Your task to perform on an android device: Open CNN.com Image 0: 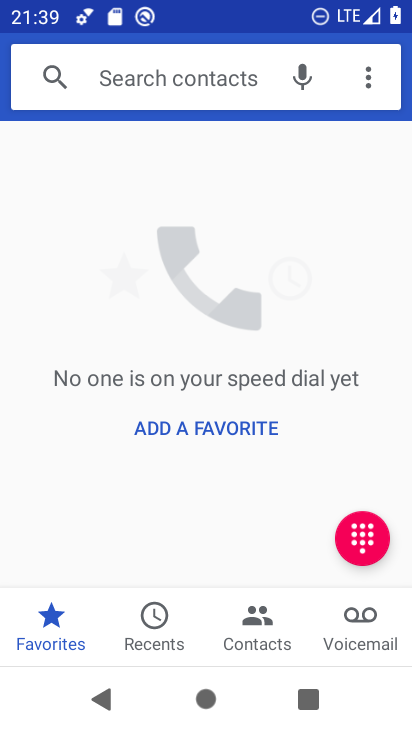
Step 0: press home button
Your task to perform on an android device: Open CNN.com Image 1: 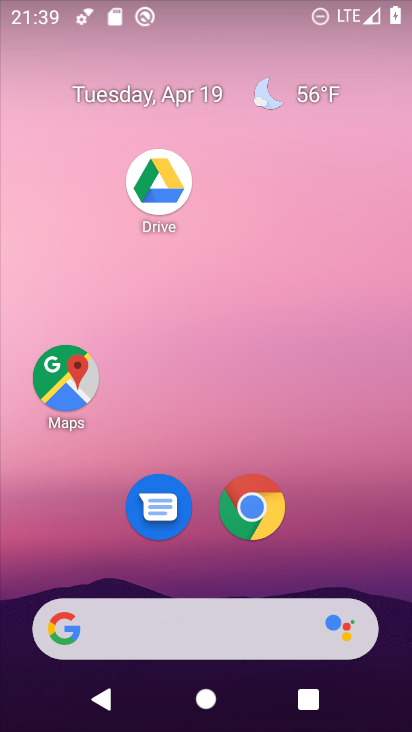
Step 1: click (273, 629)
Your task to perform on an android device: Open CNN.com Image 2: 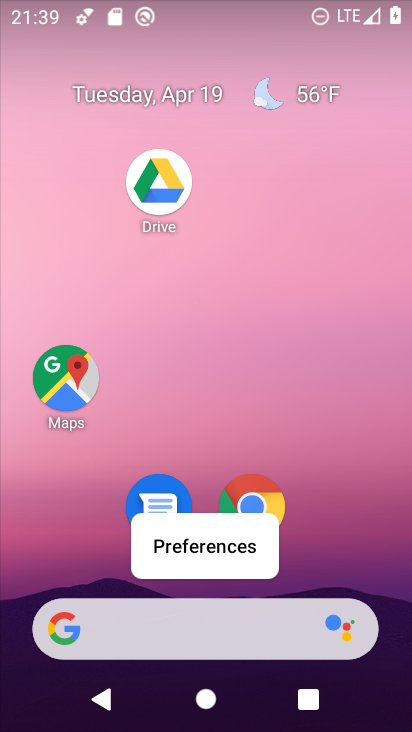
Step 2: click (273, 632)
Your task to perform on an android device: Open CNN.com Image 3: 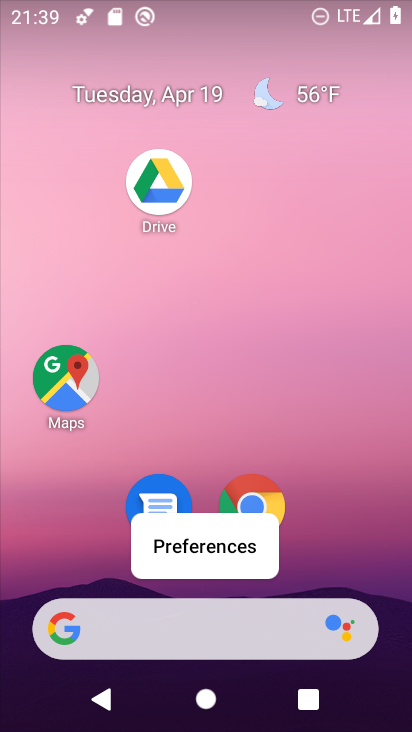
Step 3: click (172, 633)
Your task to perform on an android device: Open CNN.com Image 4: 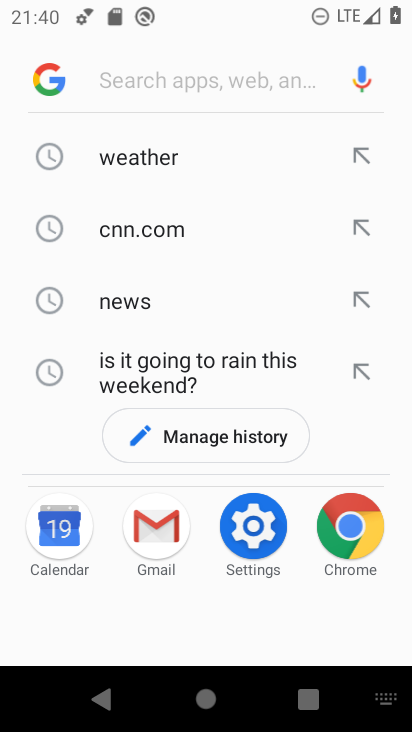
Step 4: click (193, 225)
Your task to perform on an android device: Open CNN.com Image 5: 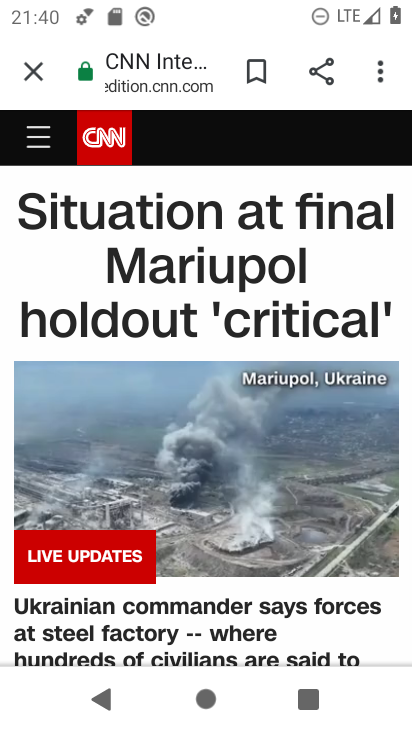
Step 5: task complete